Your task to perform on an android device: Open the map Image 0: 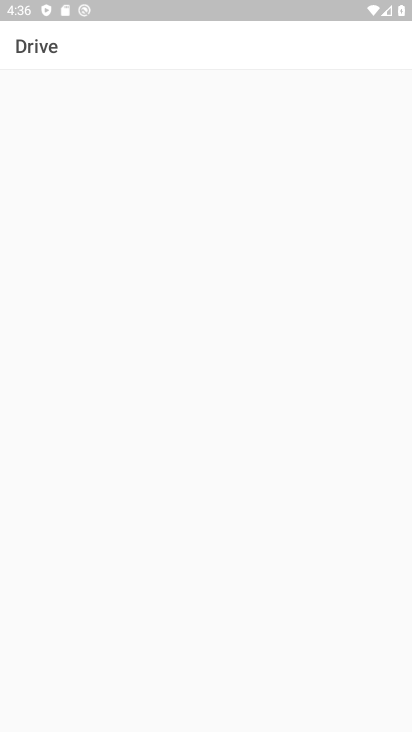
Step 0: press home button
Your task to perform on an android device: Open the map Image 1: 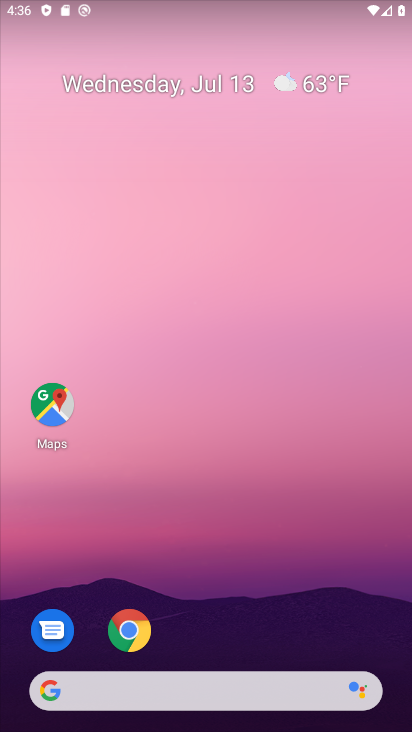
Step 1: click (56, 403)
Your task to perform on an android device: Open the map Image 2: 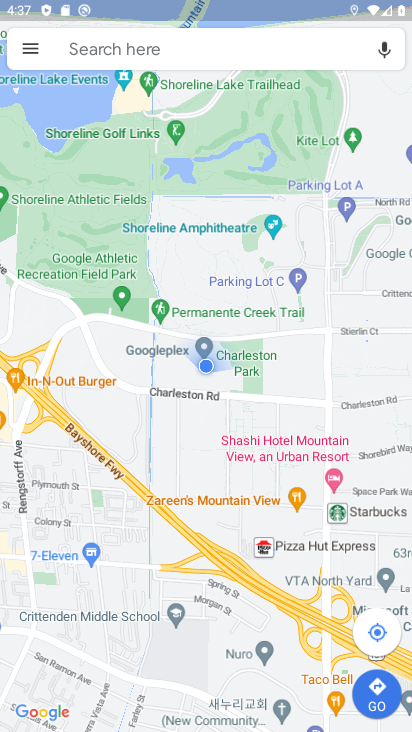
Step 2: task complete